Your task to perform on an android device: Do I have any events tomorrow? Image 0: 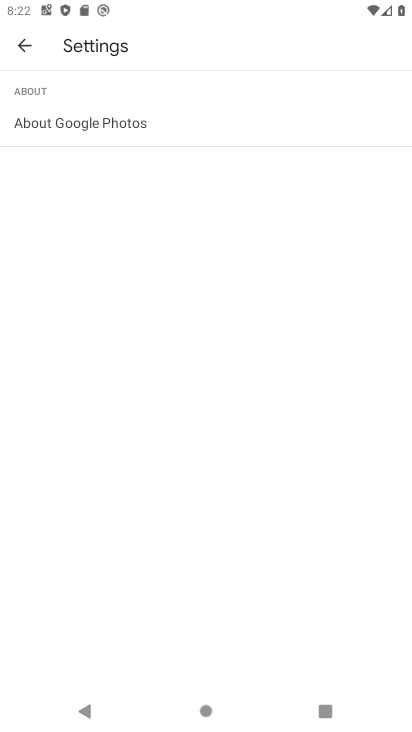
Step 0: drag from (401, 714) to (357, 117)
Your task to perform on an android device: Do I have any events tomorrow? Image 1: 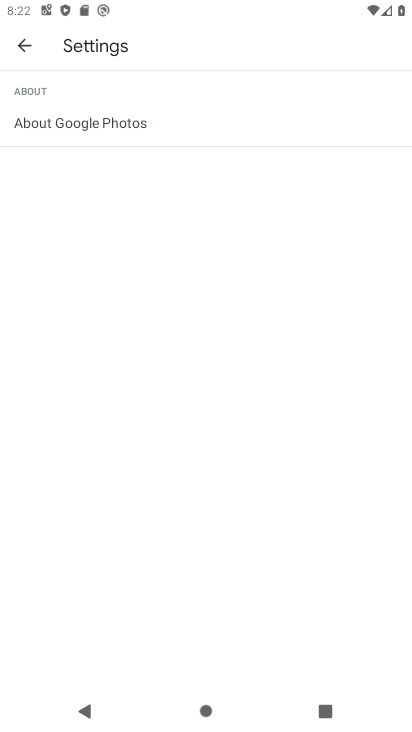
Step 1: press home button
Your task to perform on an android device: Do I have any events tomorrow? Image 2: 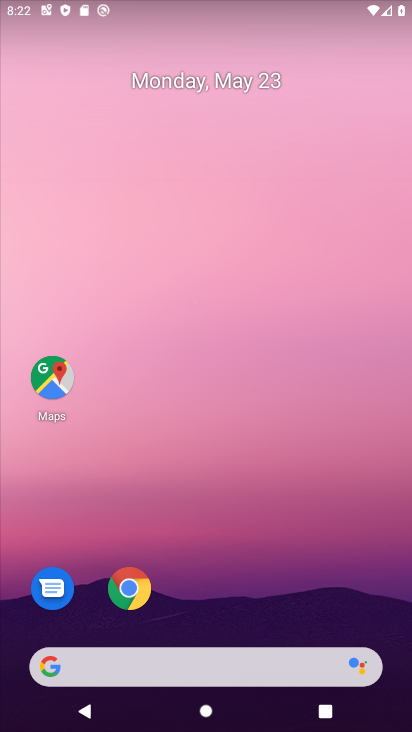
Step 2: drag from (400, 700) to (351, 59)
Your task to perform on an android device: Do I have any events tomorrow? Image 3: 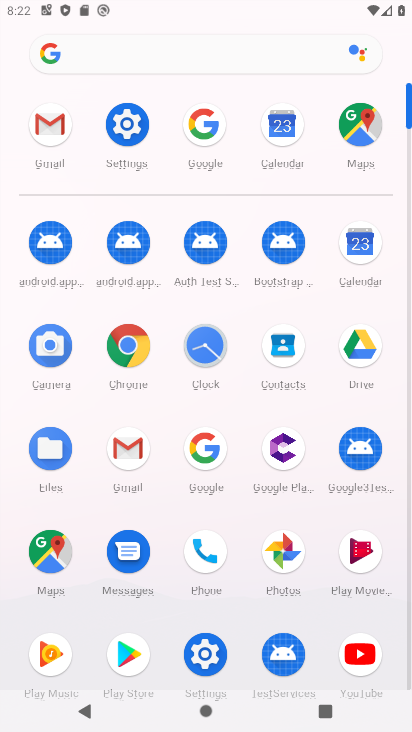
Step 3: click (357, 255)
Your task to perform on an android device: Do I have any events tomorrow? Image 4: 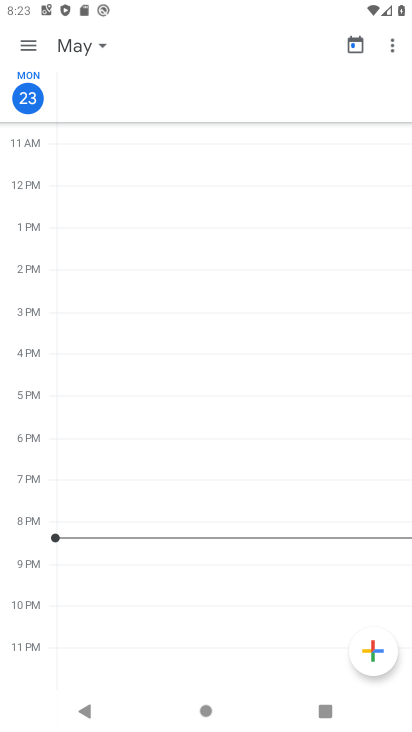
Step 4: click (97, 39)
Your task to perform on an android device: Do I have any events tomorrow? Image 5: 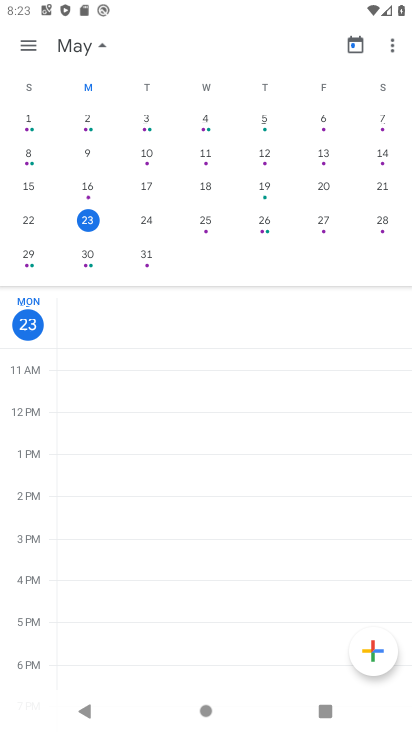
Step 5: click (143, 218)
Your task to perform on an android device: Do I have any events tomorrow? Image 6: 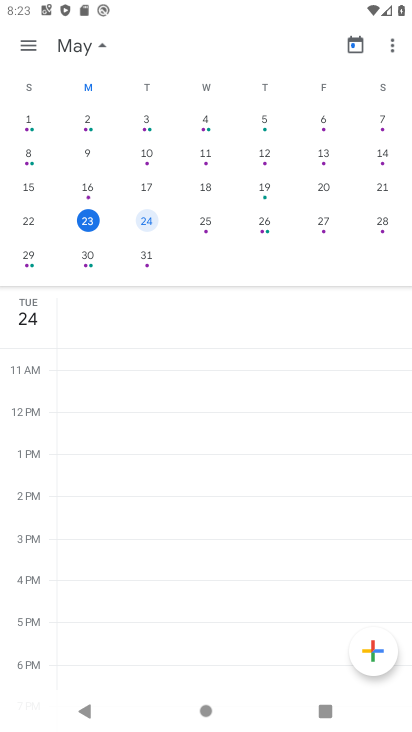
Step 6: click (31, 48)
Your task to perform on an android device: Do I have any events tomorrow? Image 7: 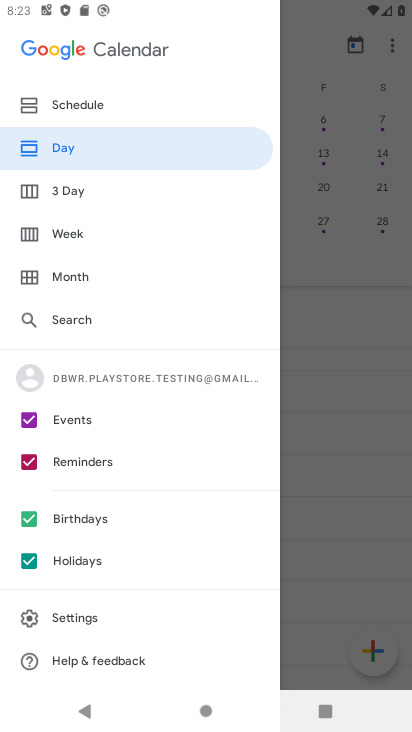
Step 7: click (28, 459)
Your task to perform on an android device: Do I have any events tomorrow? Image 8: 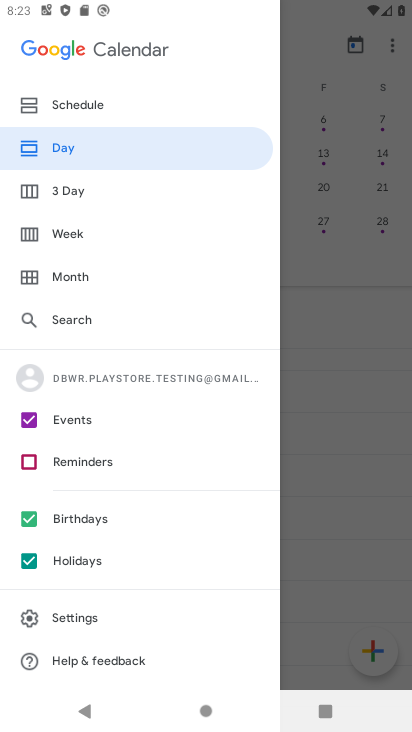
Step 8: click (24, 518)
Your task to perform on an android device: Do I have any events tomorrow? Image 9: 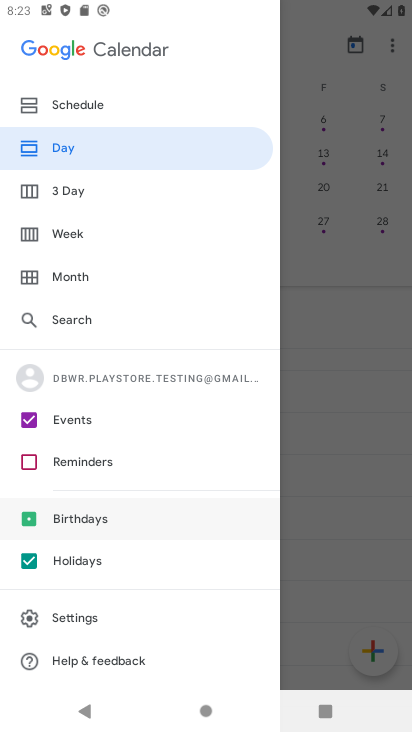
Step 9: click (34, 557)
Your task to perform on an android device: Do I have any events tomorrow? Image 10: 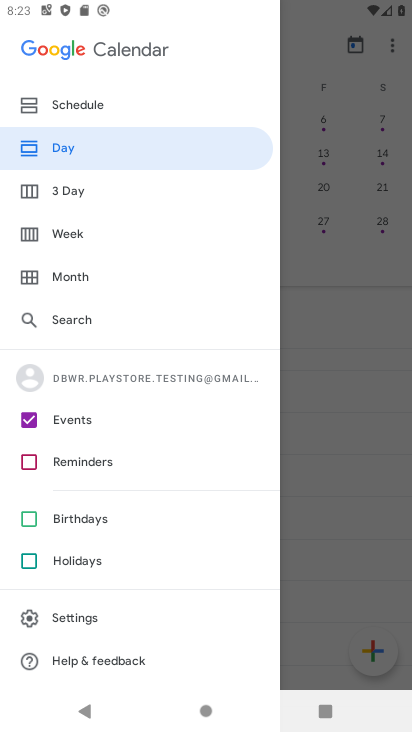
Step 10: click (84, 105)
Your task to perform on an android device: Do I have any events tomorrow? Image 11: 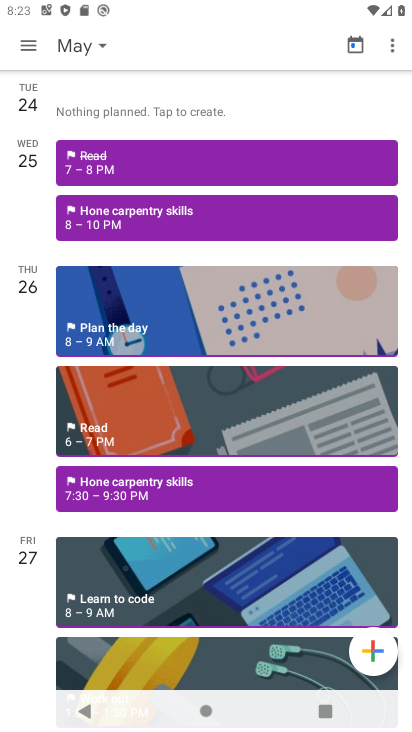
Step 11: task complete